Your task to perform on an android device: Go to location settings Image 0: 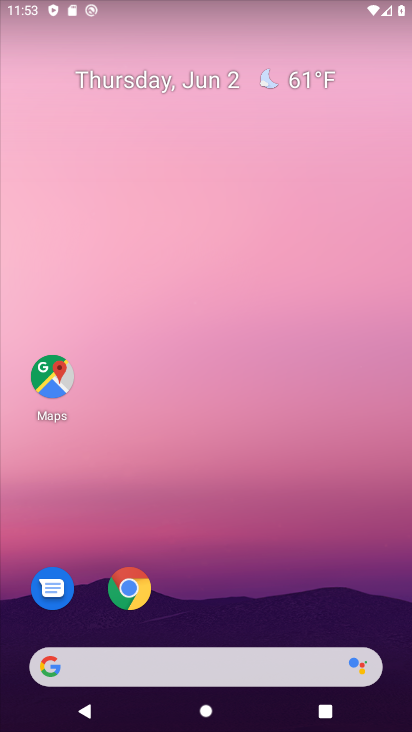
Step 0: drag from (272, 617) to (272, 203)
Your task to perform on an android device: Go to location settings Image 1: 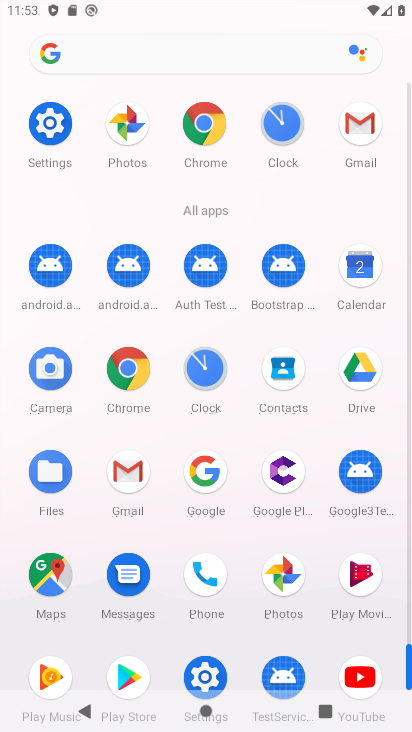
Step 1: drag from (224, 185) to (228, 85)
Your task to perform on an android device: Go to location settings Image 2: 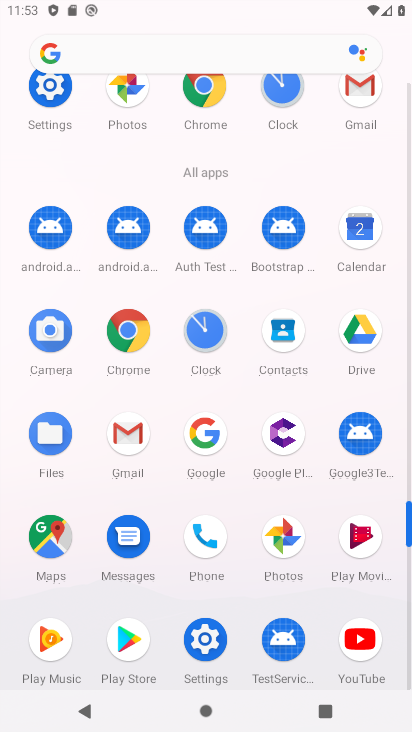
Step 2: drag from (246, 162) to (209, 619)
Your task to perform on an android device: Go to location settings Image 3: 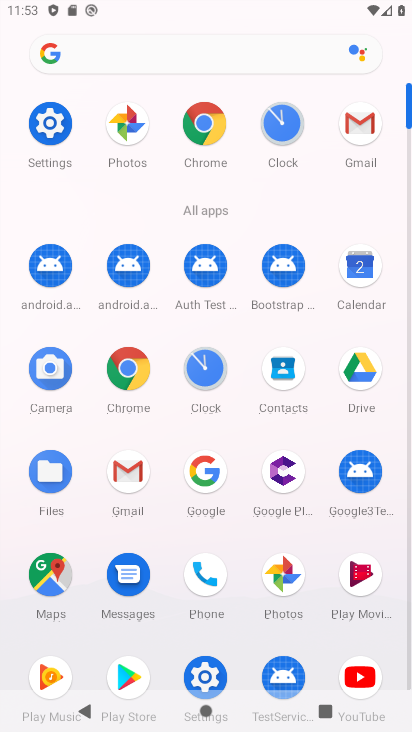
Step 3: drag from (239, 222) to (237, 81)
Your task to perform on an android device: Go to location settings Image 4: 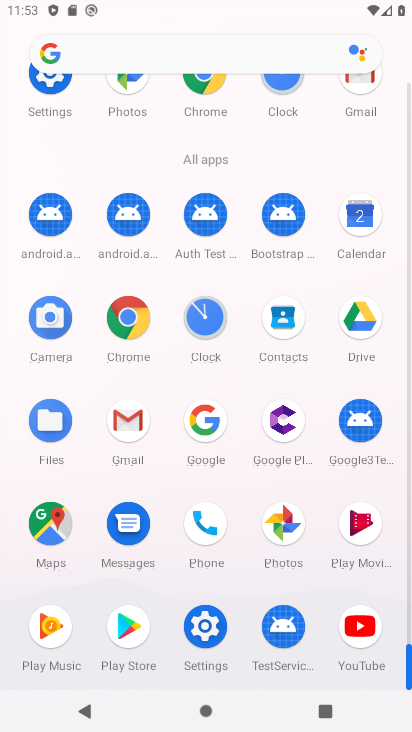
Step 4: click (207, 637)
Your task to perform on an android device: Go to location settings Image 5: 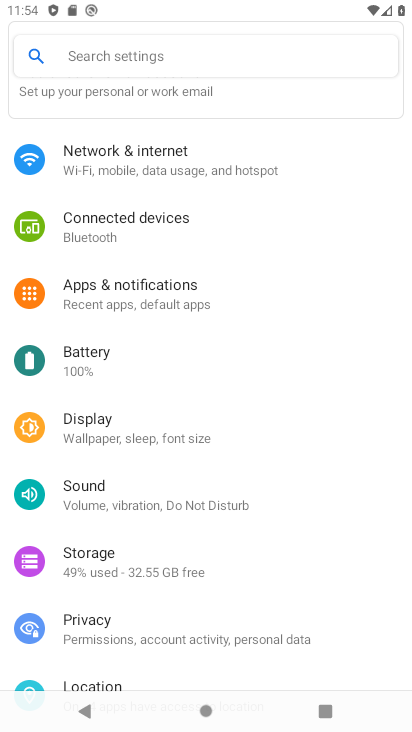
Step 5: drag from (129, 636) to (135, 441)
Your task to perform on an android device: Go to location settings Image 6: 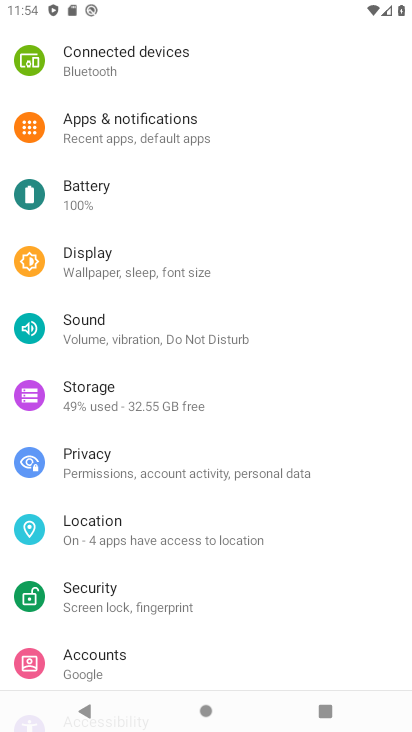
Step 6: click (159, 546)
Your task to perform on an android device: Go to location settings Image 7: 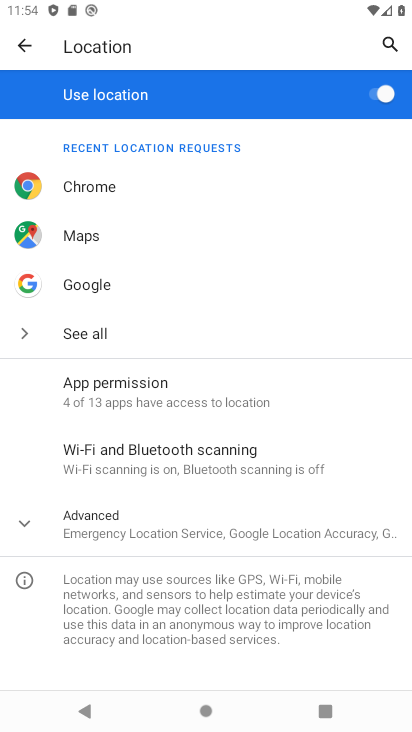
Step 7: task complete